Your task to perform on an android device: Open Amazon Image 0: 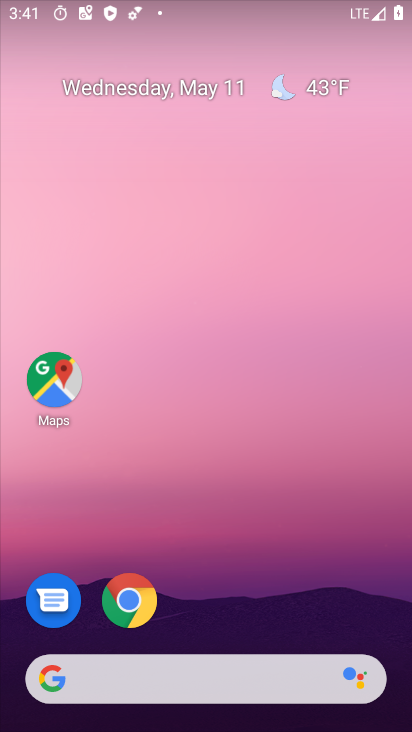
Step 0: click (128, 606)
Your task to perform on an android device: Open Amazon Image 1: 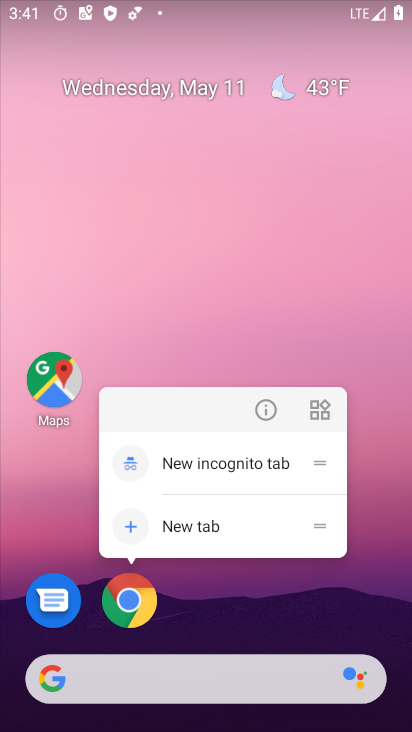
Step 1: click (134, 602)
Your task to perform on an android device: Open Amazon Image 2: 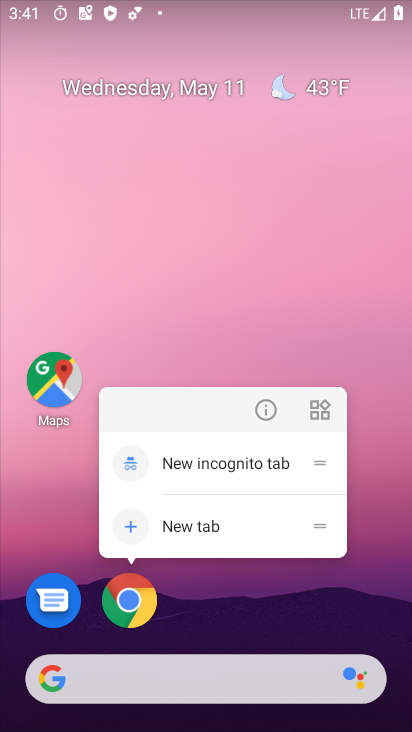
Step 2: click (134, 602)
Your task to perform on an android device: Open Amazon Image 3: 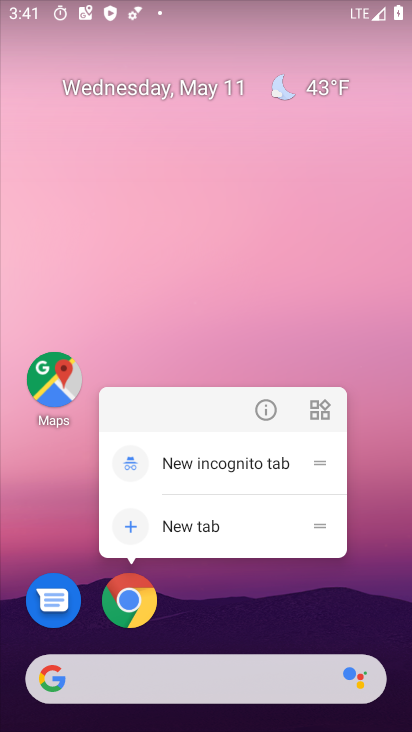
Step 3: click (134, 602)
Your task to perform on an android device: Open Amazon Image 4: 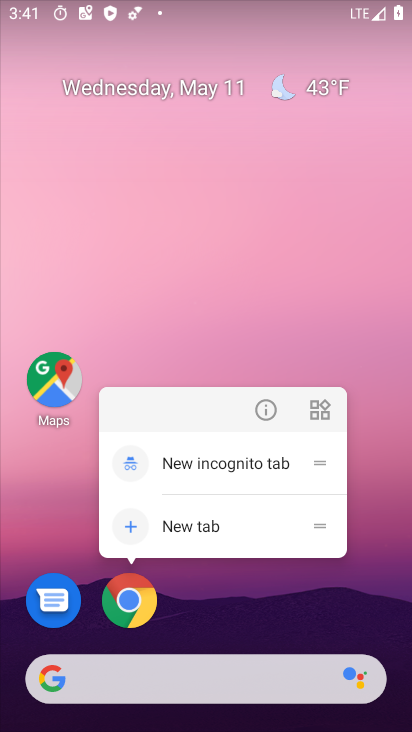
Step 4: click (134, 602)
Your task to perform on an android device: Open Amazon Image 5: 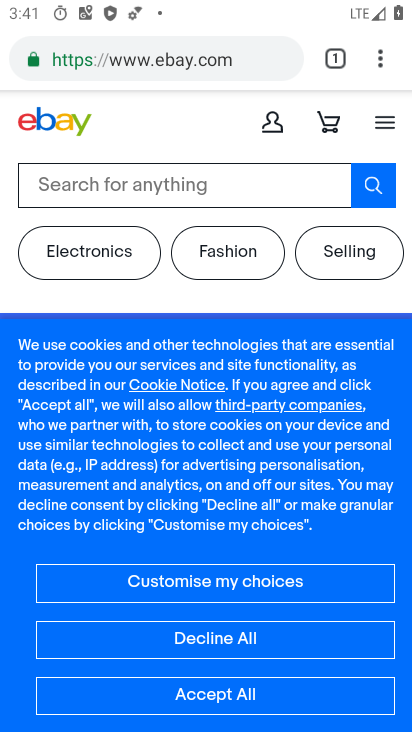
Step 5: click (99, 58)
Your task to perform on an android device: Open Amazon Image 6: 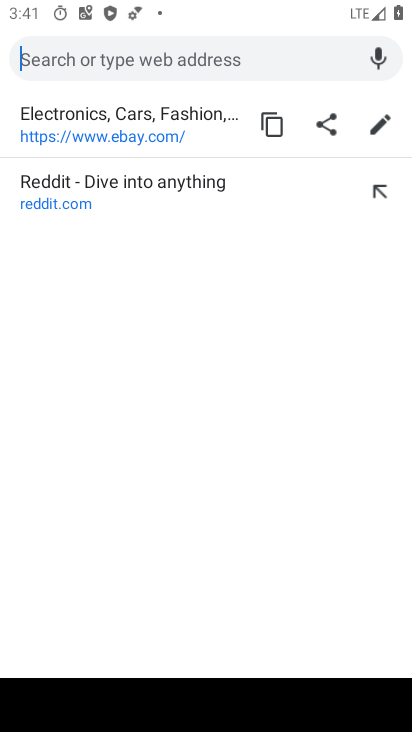
Step 6: type "amazon"
Your task to perform on an android device: Open Amazon Image 7: 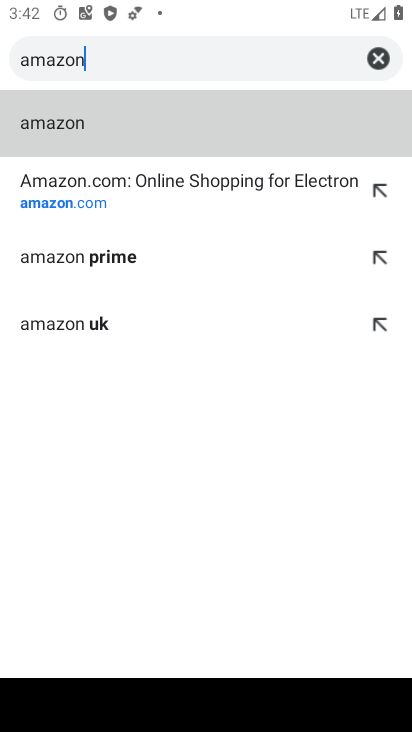
Step 7: click (53, 127)
Your task to perform on an android device: Open Amazon Image 8: 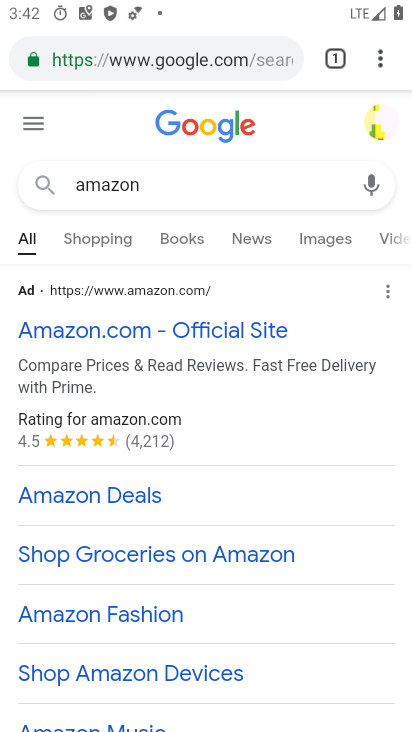
Step 8: click (62, 341)
Your task to perform on an android device: Open Amazon Image 9: 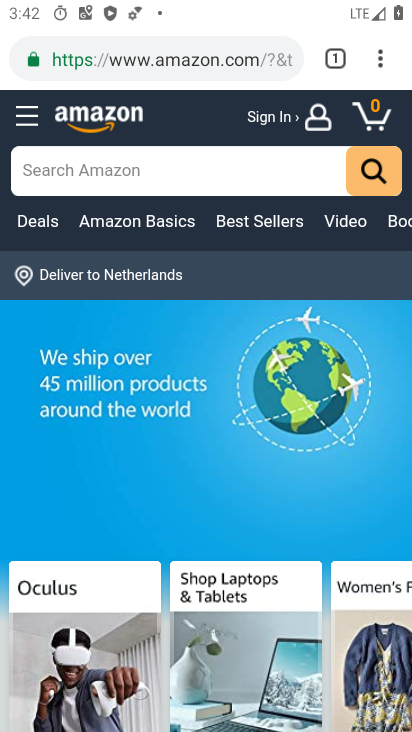
Step 9: task complete